Your task to perform on an android device: What's on my calendar tomorrow? Image 0: 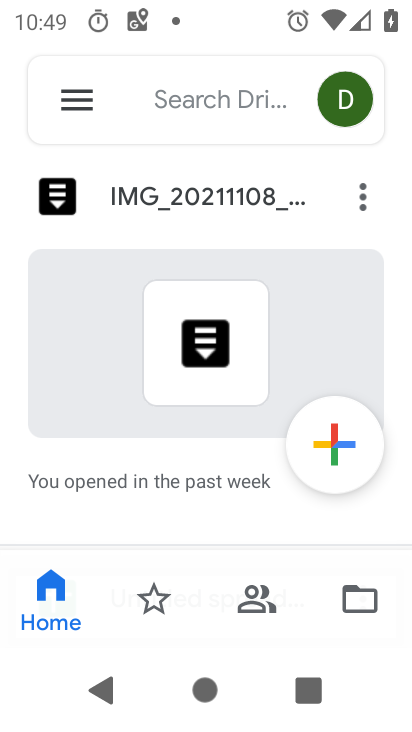
Step 0: press home button
Your task to perform on an android device: What's on my calendar tomorrow? Image 1: 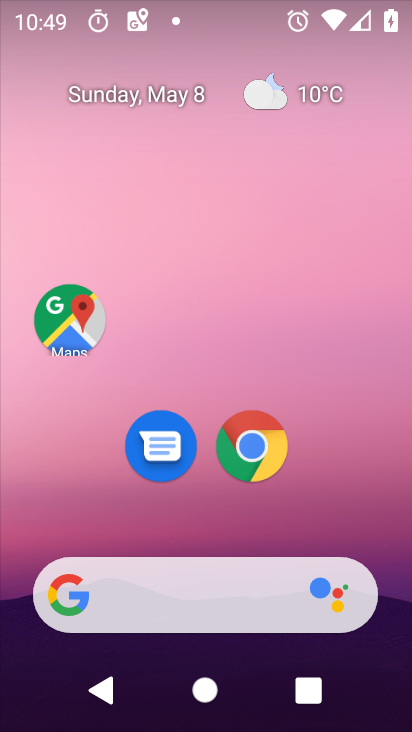
Step 1: drag from (364, 528) to (93, 0)
Your task to perform on an android device: What's on my calendar tomorrow? Image 2: 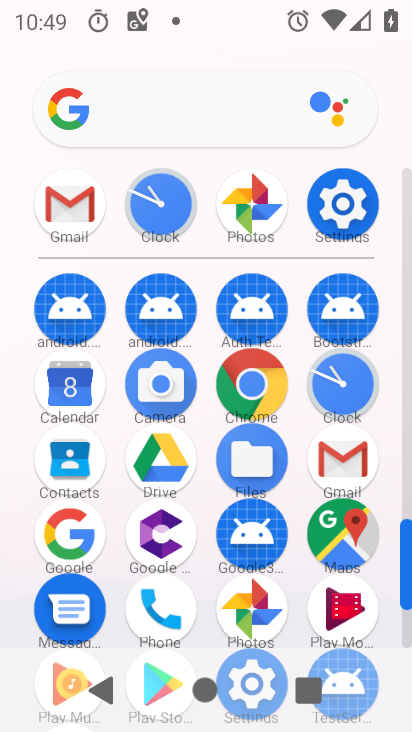
Step 2: click (61, 387)
Your task to perform on an android device: What's on my calendar tomorrow? Image 3: 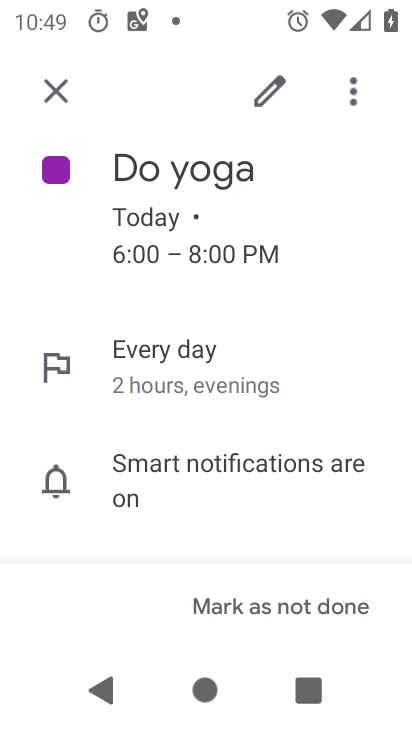
Step 3: click (63, 98)
Your task to perform on an android device: What's on my calendar tomorrow? Image 4: 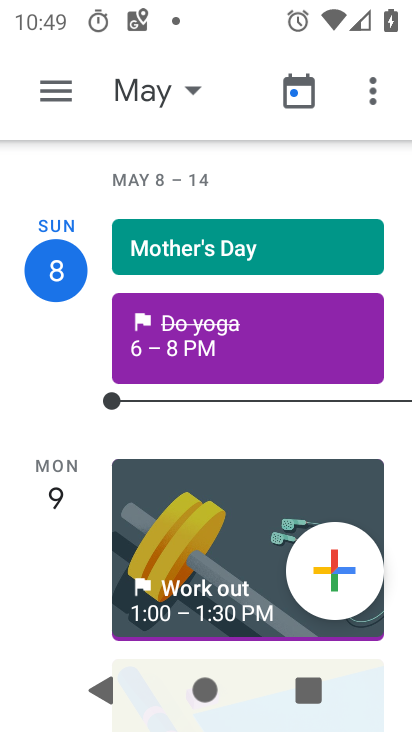
Step 4: drag from (242, 484) to (231, 222)
Your task to perform on an android device: What's on my calendar tomorrow? Image 5: 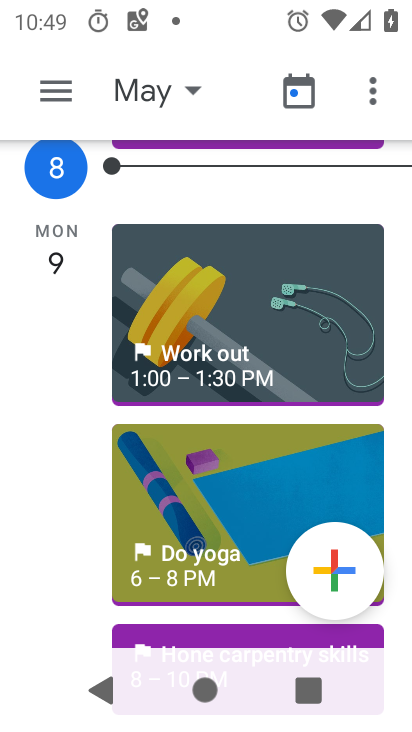
Step 5: drag from (229, 516) to (228, 216)
Your task to perform on an android device: What's on my calendar tomorrow? Image 6: 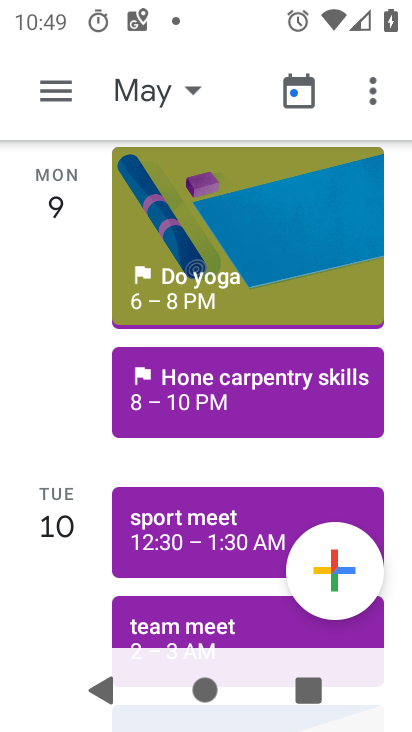
Step 6: click (201, 389)
Your task to perform on an android device: What's on my calendar tomorrow? Image 7: 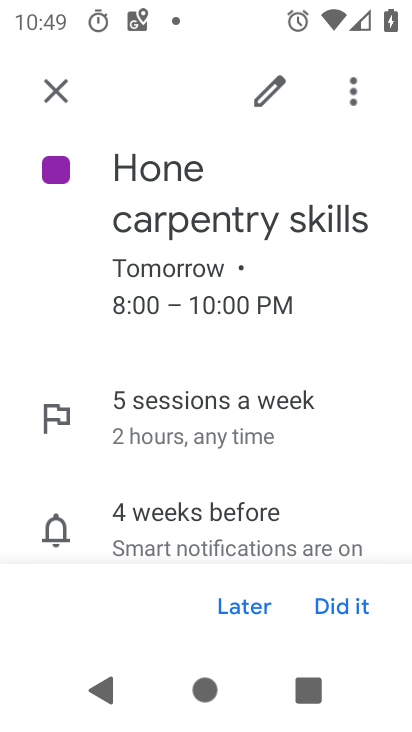
Step 7: task complete